Your task to perform on an android device: turn off location history Image 0: 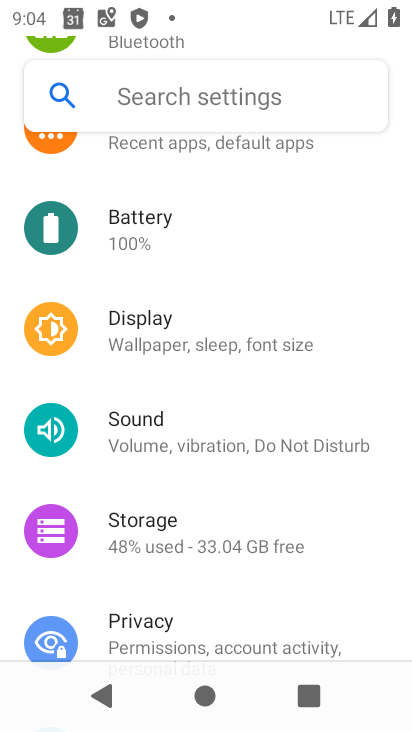
Step 0: press home button
Your task to perform on an android device: turn off location history Image 1: 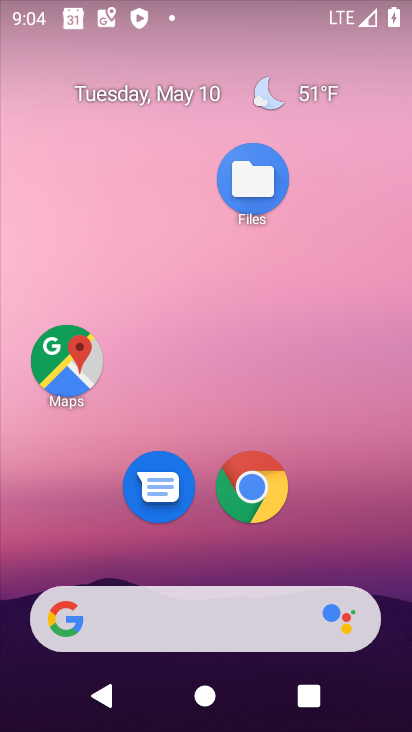
Step 1: drag from (207, 537) to (170, 96)
Your task to perform on an android device: turn off location history Image 2: 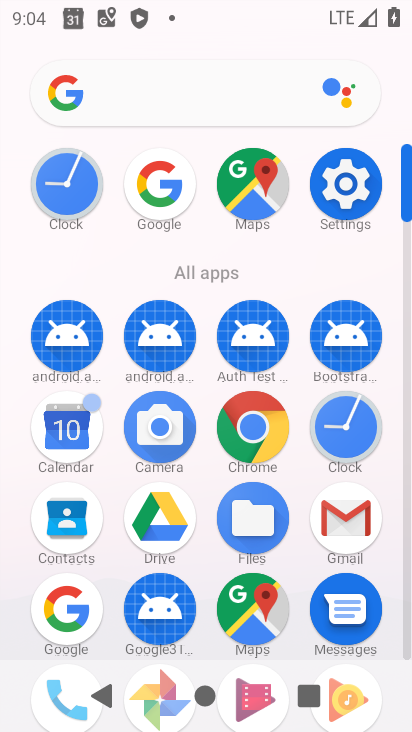
Step 2: click (343, 184)
Your task to perform on an android device: turn off location history Image 3: 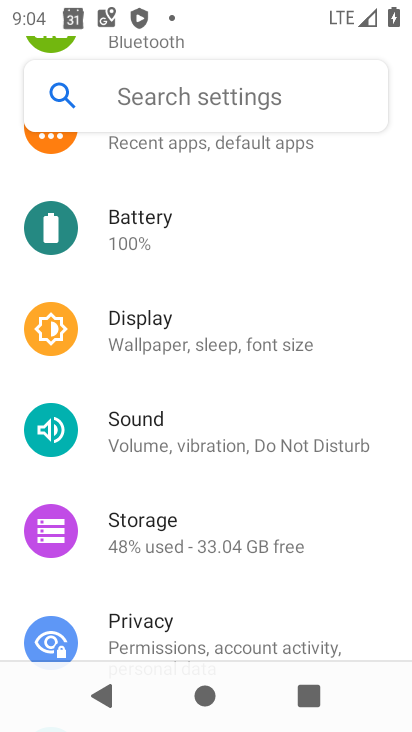
Step 3: drag from (212, 594) to (245, 94)
Your task to perform on an android device: turn off location history Image 4: 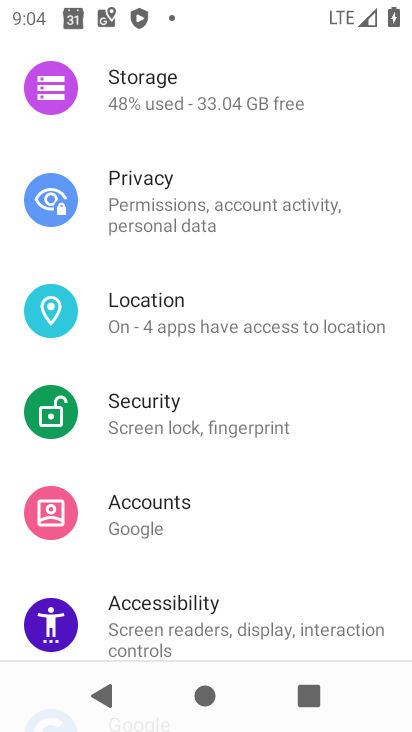
Step 4: click (167, 311)
Your task to perform on an android device: turn off location history Image 5: 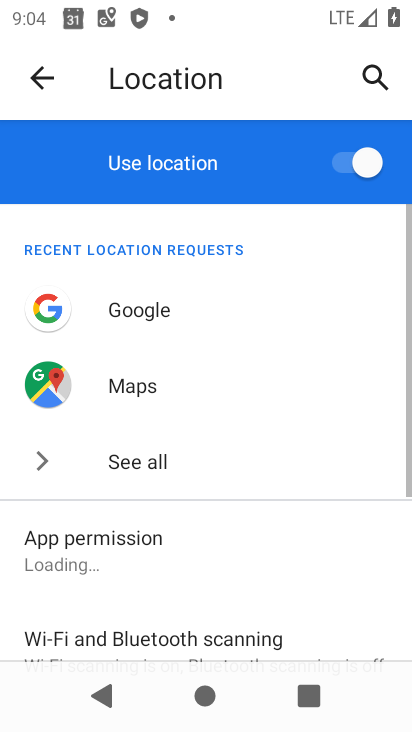
Step 5: drag from (165, 582) to (201, 185)
Your task to perform on an android device: turn off location history Image 6: 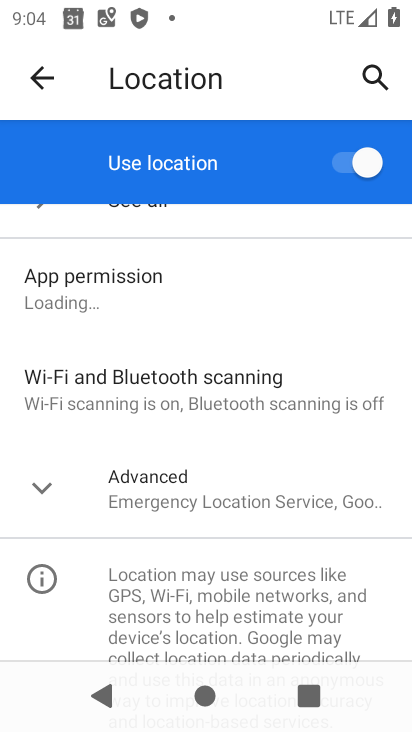
Step 6: click (115, 491)
Your task to perform on an android device: turn off location history Image 7: 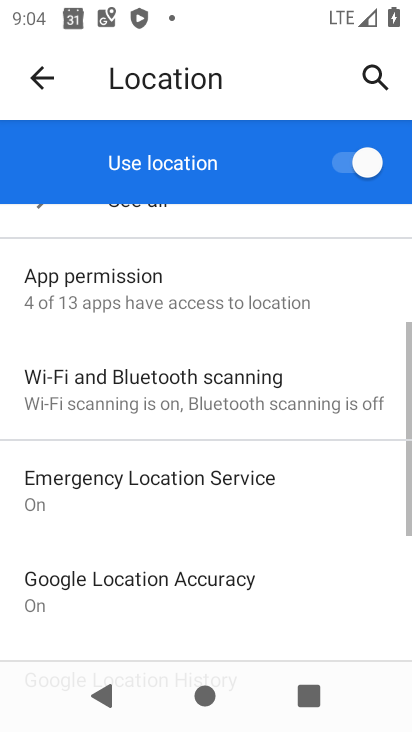
Step 7: drag from (276, 559) to (278, 346)
Your task to perform on an android device: turn off location history Image 8: 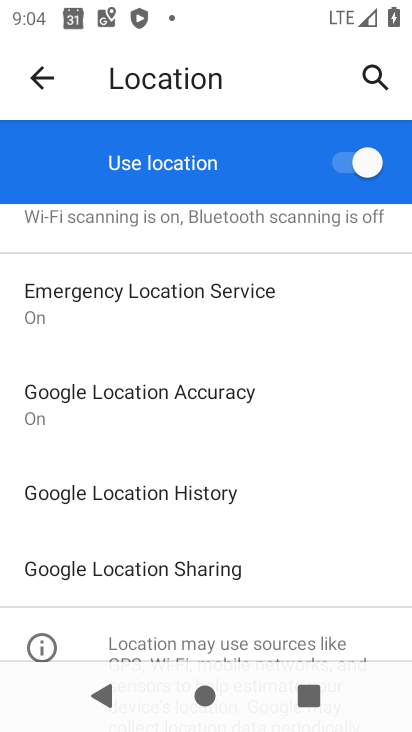
Step 8: click (140, 494)
Your task to perform on an android device: turn off location history Image 9: 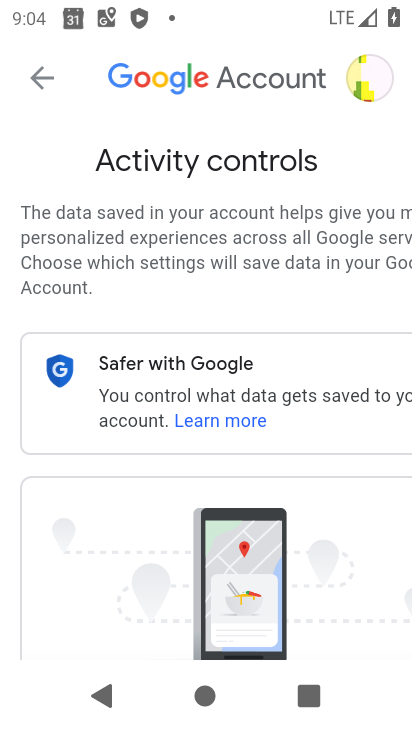
Step 9: drag from (327, 555) to (315, 11)
Your task to perform on an android device: turn off location history Image 10: 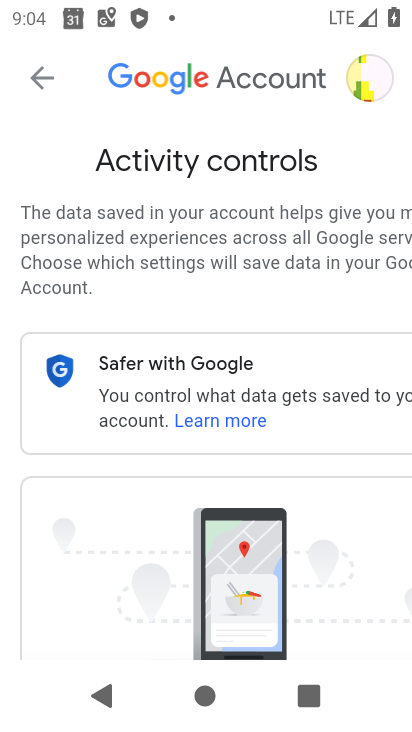
Step 10: drag from (177, 584) to (248, 114)
Your task to perform on an android device: turn off location history Image 11: 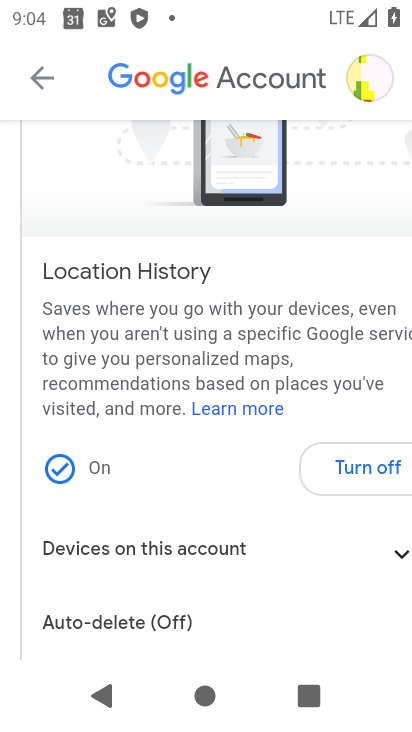
Step 11: click (354, 464)
Your task to perform on an android device: turn off location history Image 12: 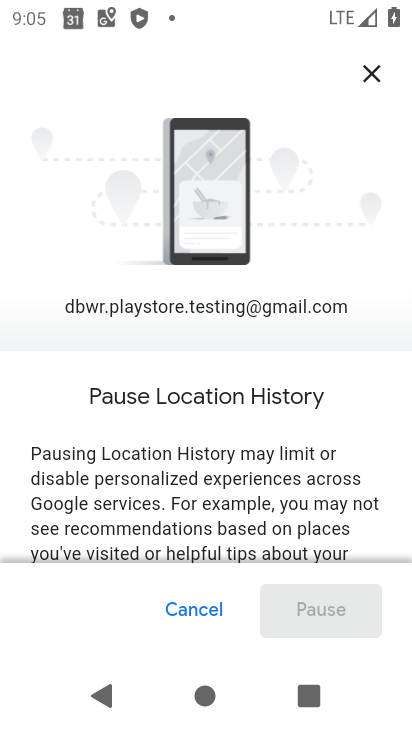
Step 12: drag from (358, 443) to (361, 11)
Your task to perform on an android device: turn off location history Image 13: 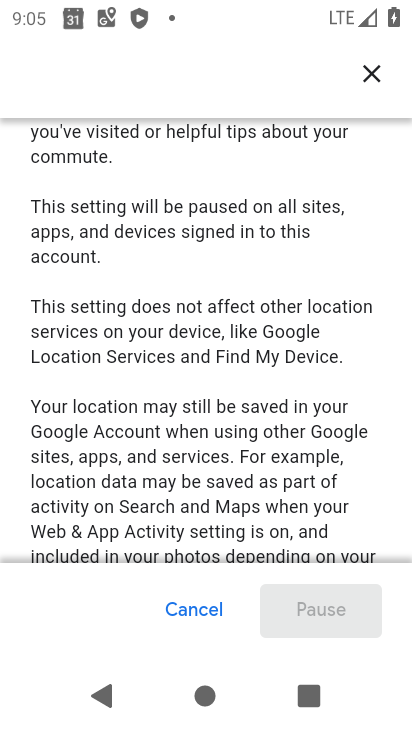
Step 13: drag from (331, 559) to (353, 85)
Your task to perform on an android device: turn off location history Image 14: 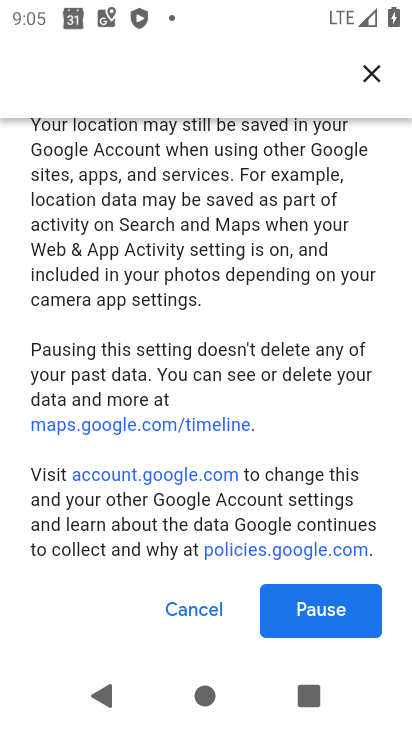
Step 14: click (301, 613)
Your task to perform on an android device: turn off location history Image 15: 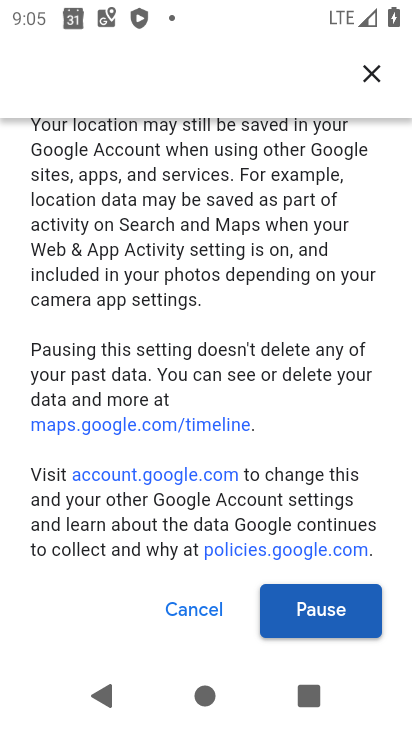
Step 15: click (326, 608)
Your task to perform on an android device: turn off location history Image 16: 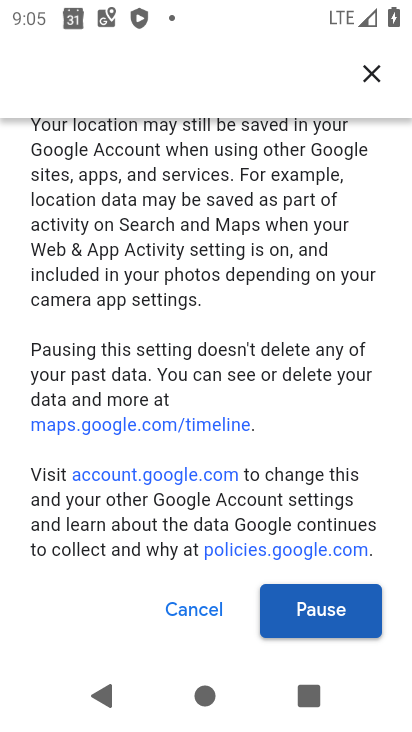
Step 16: click (308, 614)
Your task to perform on an android device: turn off location history Image 17: 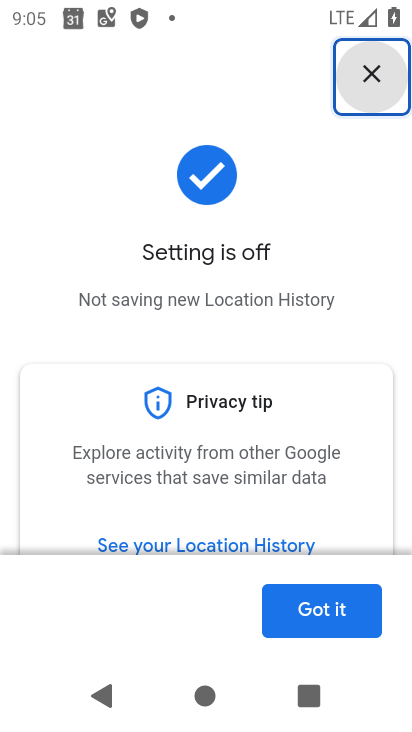
Step 17: task complete